Your task to perform on an android device: Go to location settings Image 0: 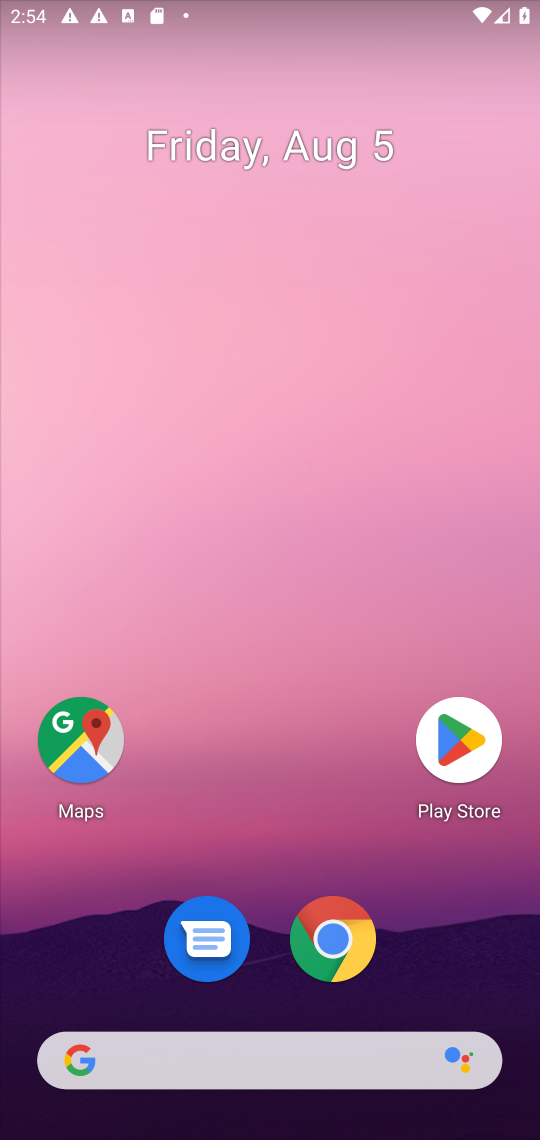
Step 0: drag from (287, 956) to (285, 27)
Your task to perform on an android device: Go to location settings Image 1: 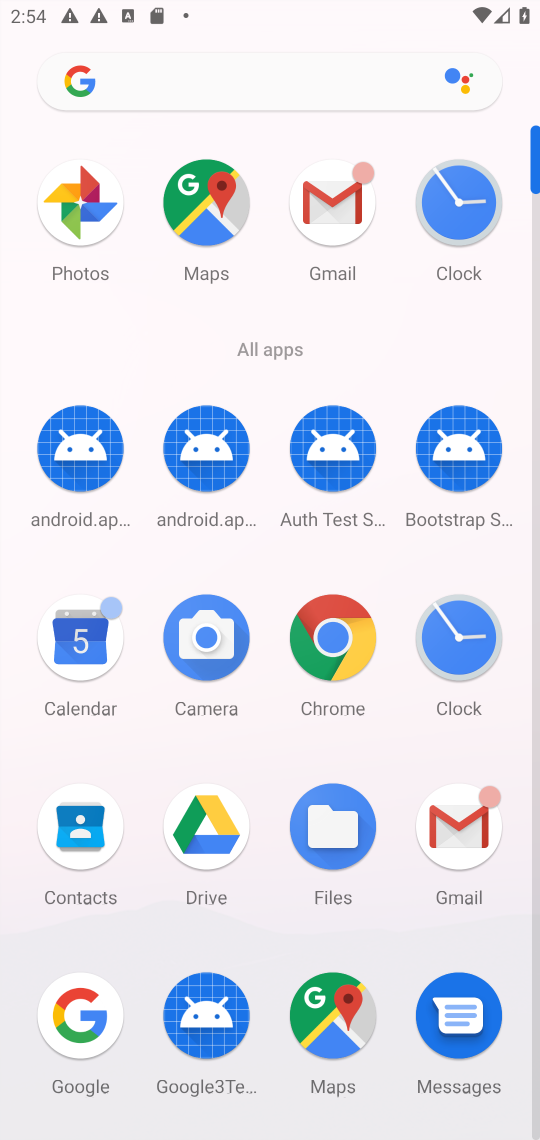
Step 1: drag from (512, 905) to (430, 68)
Your task to perform on an android device: Go to location settings Image 2: 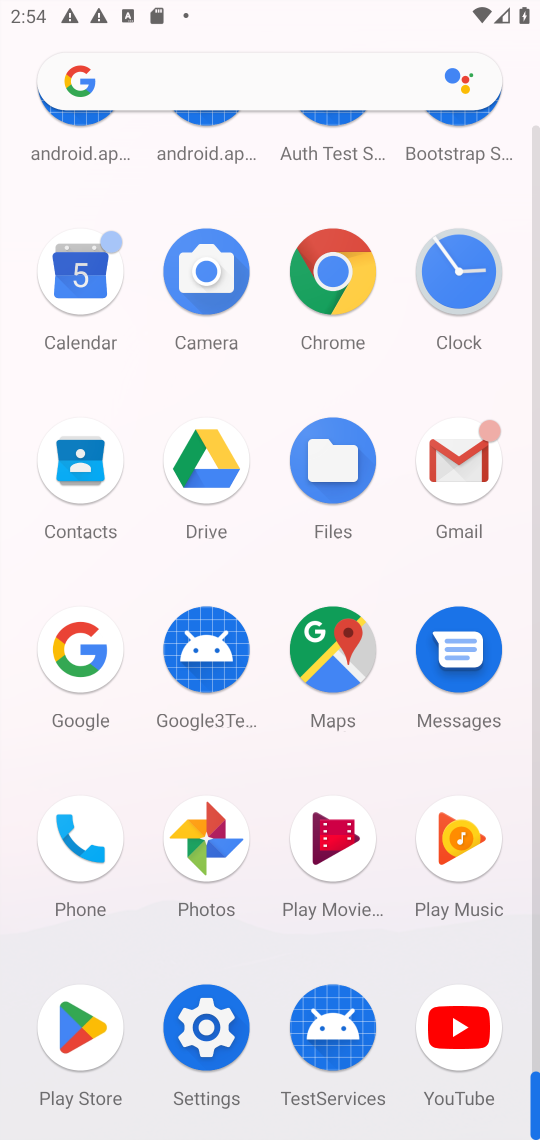
Step 2: click (226, 1038)
Your task to perform on an android device: Go to location settings Image 3: 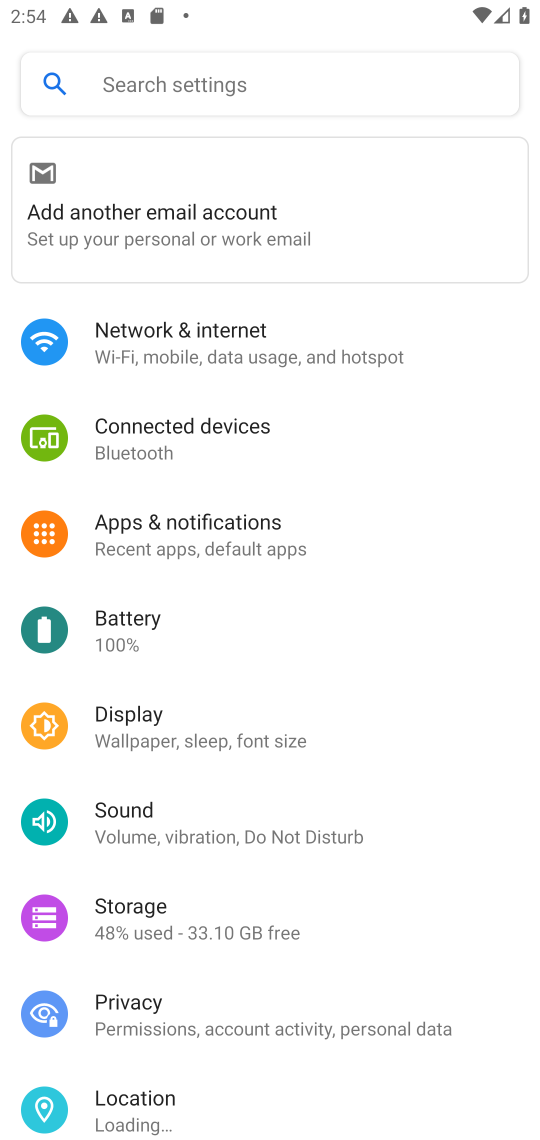
Step 3: drag from (217, 888) to (243, 228)
Your task to perform on an android device: Go to location settings Image 4: 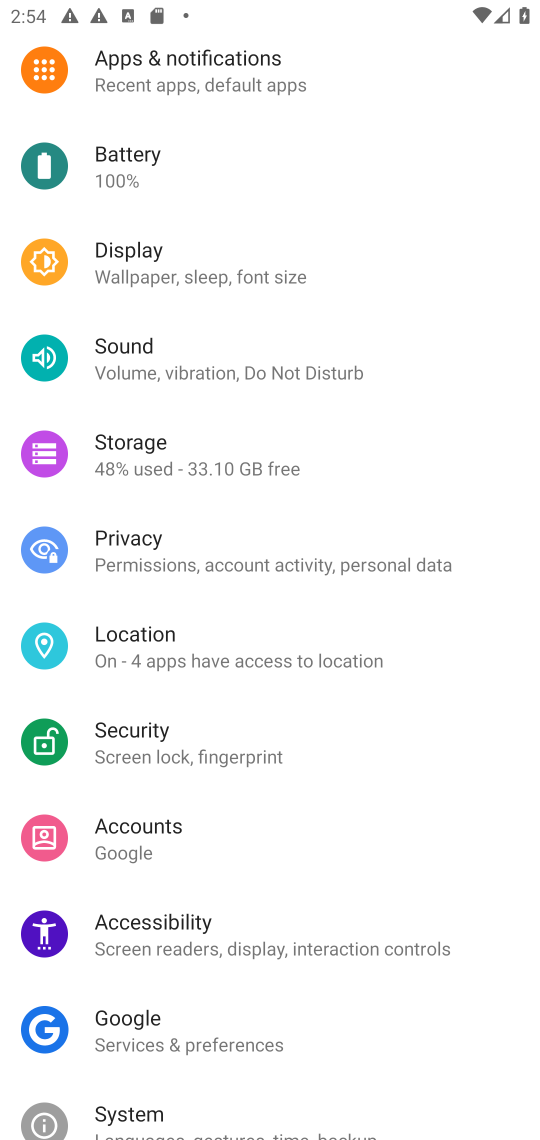
Step 4: click (144, 670)
Your task to perform on an android device: Go to location settings Image 5: 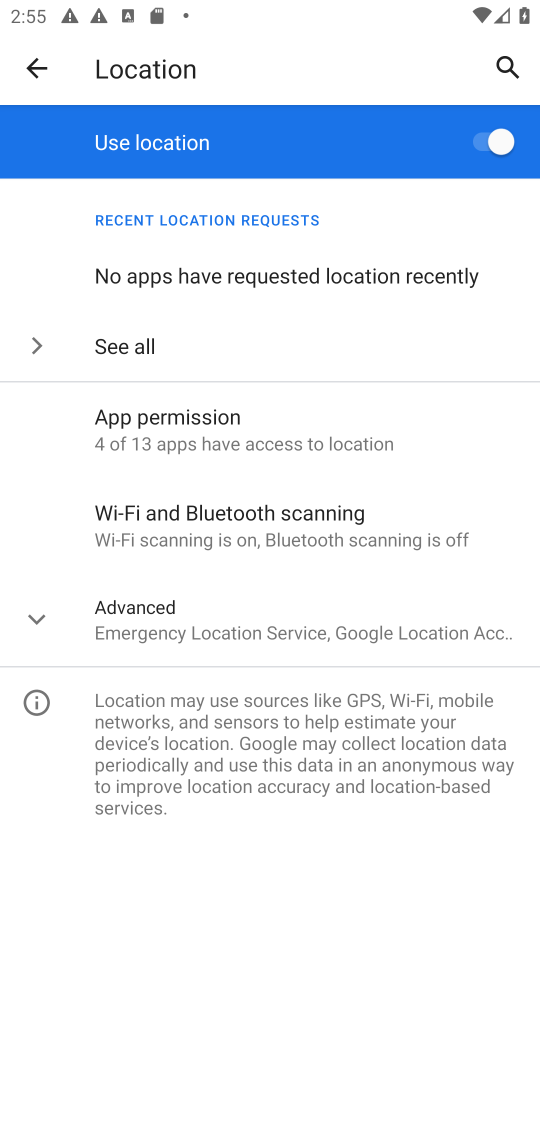
Step 5: task complete